Your task to perform on an android device: Go to Google maps Image 0: 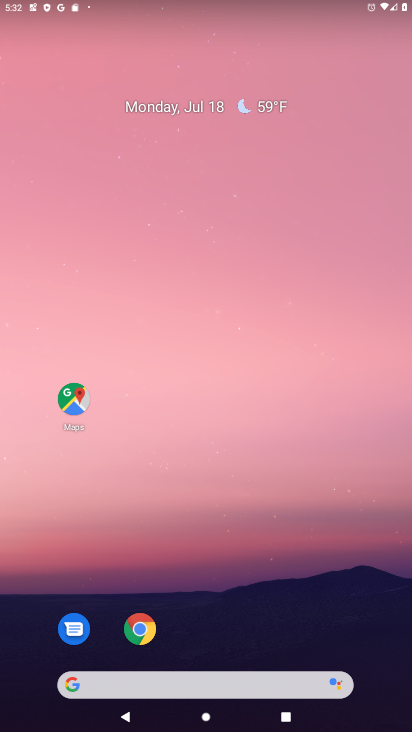
Step 0: drag from (248, 558) to (324, 36)
Your task to perform on an android device: Go to Google maps Image 1: 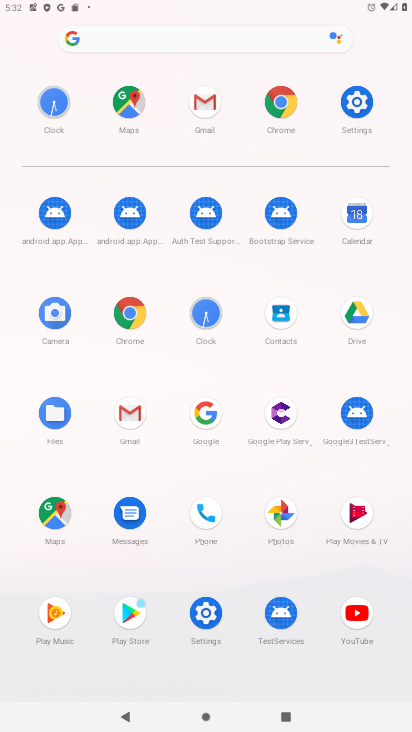
Step 1: click (127, 93)
Your task to perform on an android device: Go to Google maps Image 2: 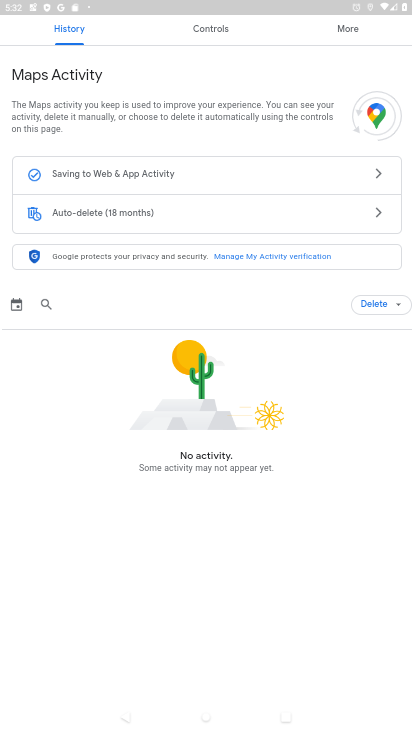
Step 2: task complete